Your task to perform on an android device: Do I have any events today? Image 0: 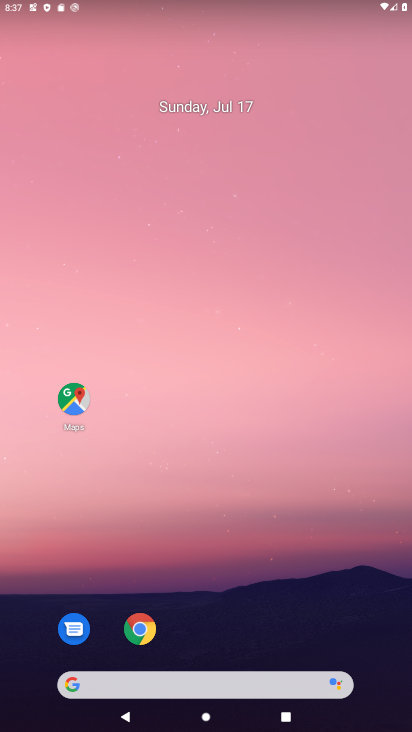
Step 0: drag from (238, 730) to (235, 5)
Your task to perform on an android device: Do I have any events today? Image 1: 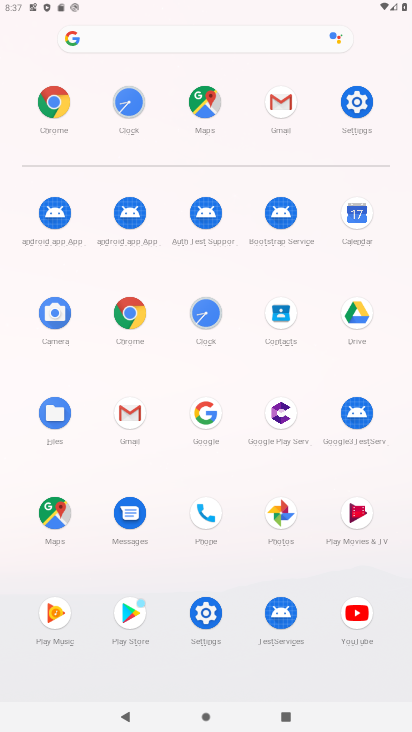
Step 1: click (361, 209)
Your task to perform on an android device: Do I have any events today? Image 2: 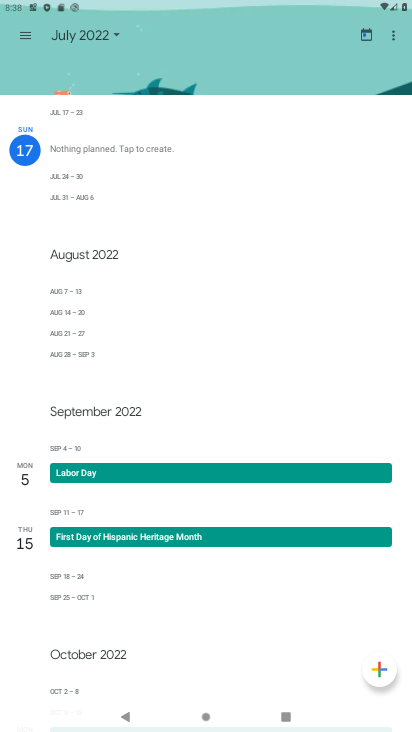
Step 2: click (28, 31)
Your task to perform on an android device: Do I have any events today? Image 3: 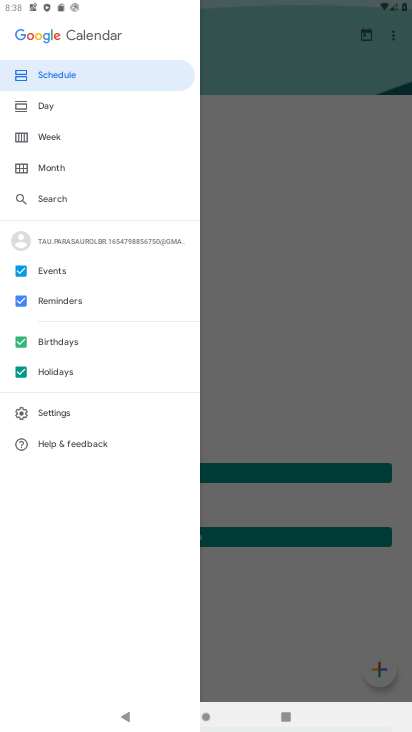
Step 3: click (19, 306)
Your task to perform on an android device: Do I have any events today? Image 4: 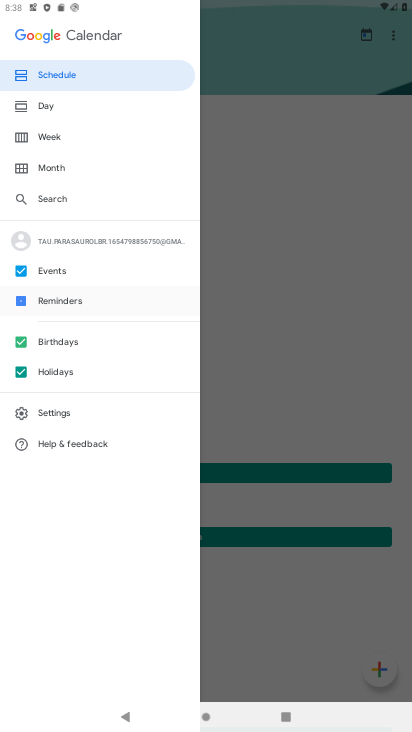
Step 4: click (23, 343)
Your task to perform on an android device: Do I have any events today? Image 5: 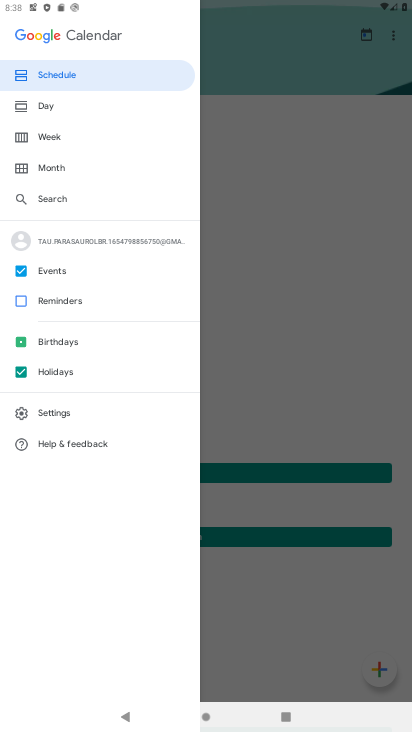
Step 5: click (15, 367)
Your task to perform on an android device: Do I have any events today? Image 6: 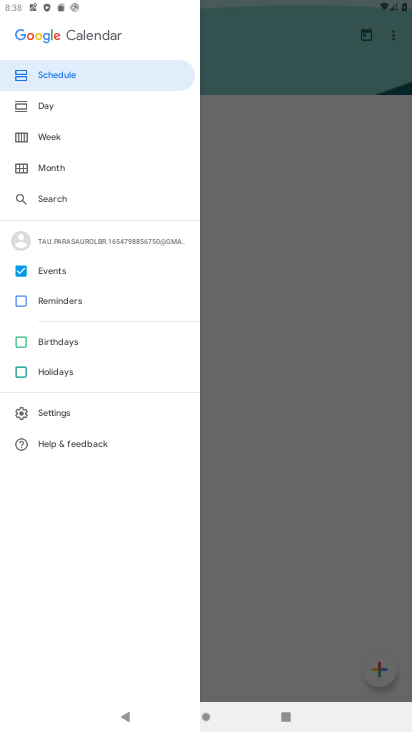
Step 6: click (314, 167)
Your task to perform on an android device: Do I have any events today? Image 7: 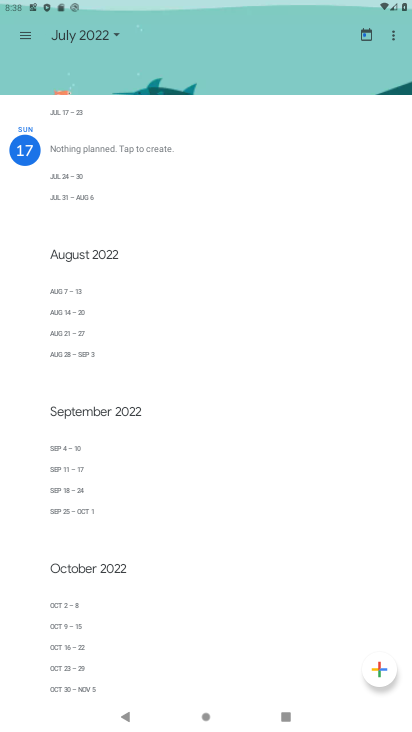
Step 7: task complete